Your task to perform on an android device: Show me recent news Image 0: 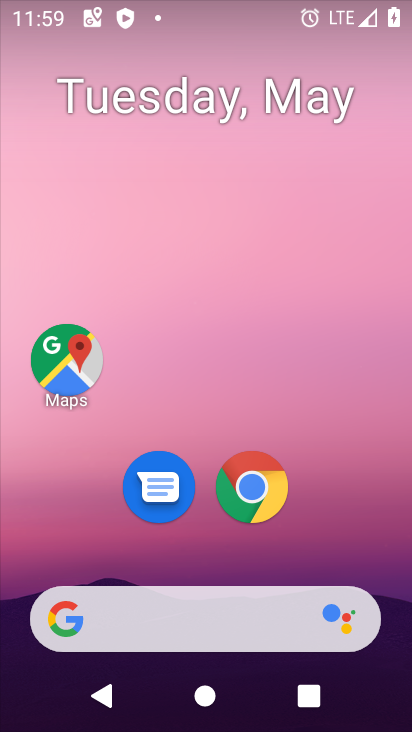
Step 0: drag from (193, 496) to (179, 125)
Your task to perform on an android device: Show me recent news Image 1: 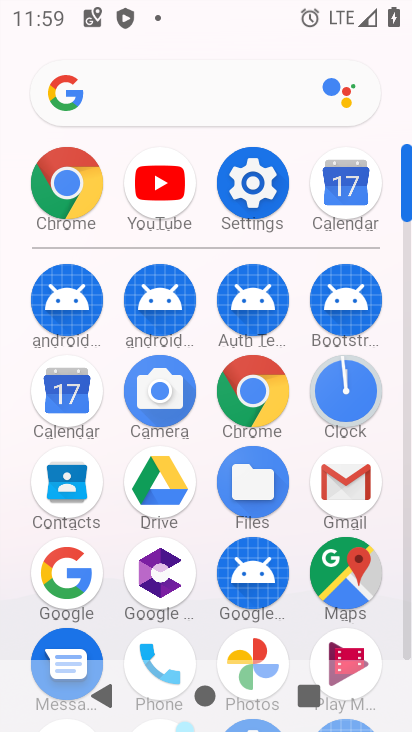
Step 1: click (146, 98)
Your task to perform on an android device: Show me recent news Image 2: 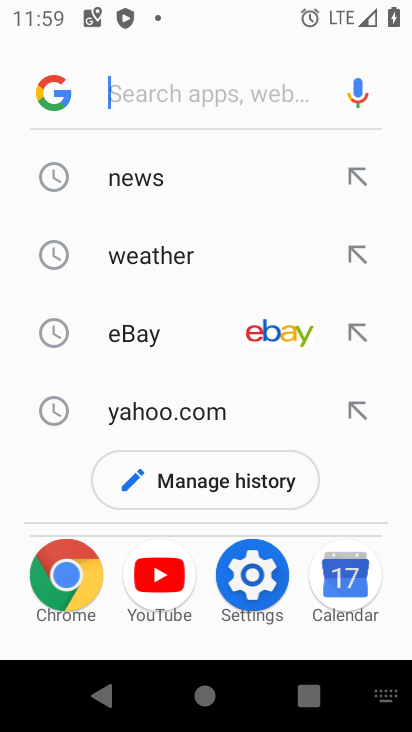
Step 2: type "resent news"
Your task to perform on an android device: Show me recent news Image 3: 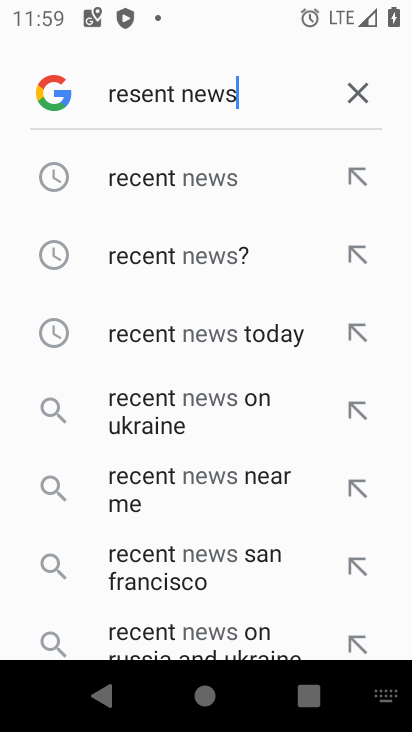
Step 3: click (219, 173)
Your task to perform on an android device: Show me recent news Image 4: 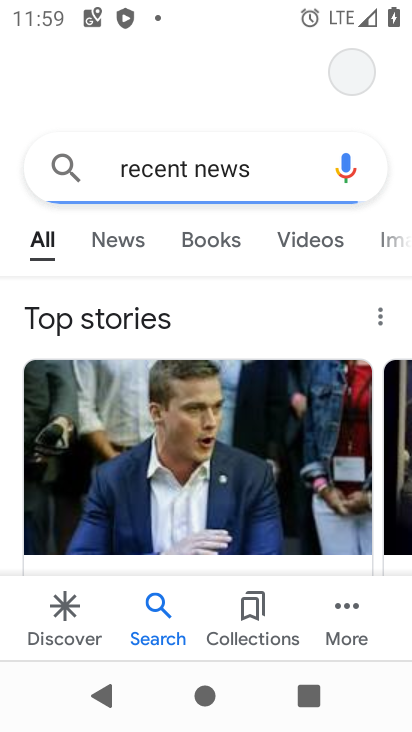
Step 4: task complete